Your task to perform on an android device: Open accessibility settings Image 0: 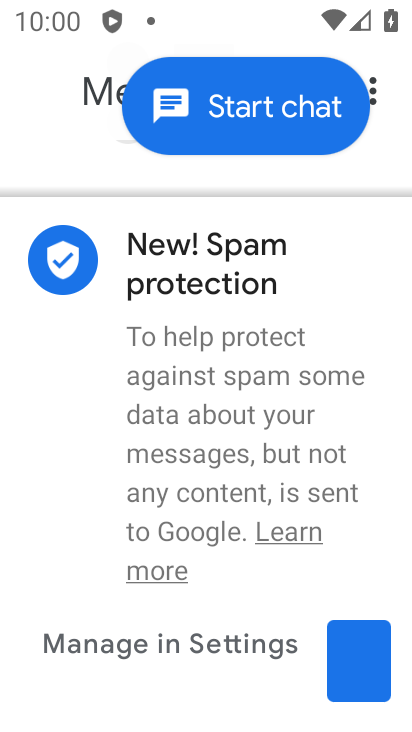
Step 0: press home button
Your task to perform on an android device: Open accessibility settings Image 1: 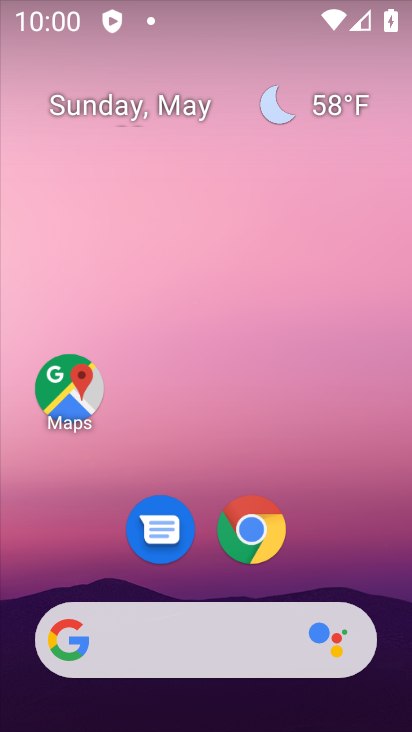
Step 1: drag from (214, 577) to (196, 267)
Your task to perform on an android device: Open accessibility settings Image 2: 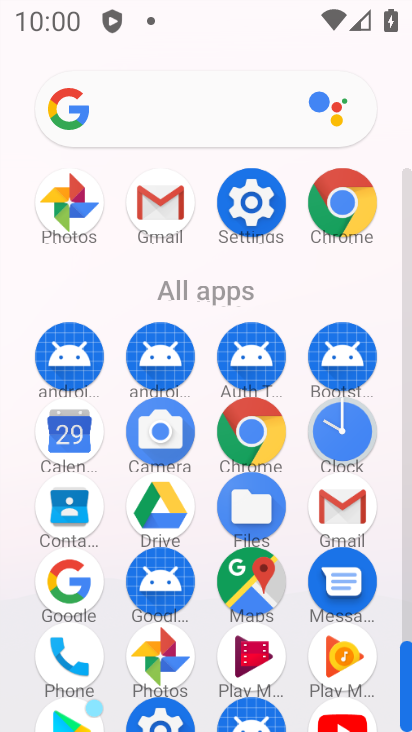
Step 2: click (264, 200)
Your task to perform on an android device: Open accessibility settings Image 3: 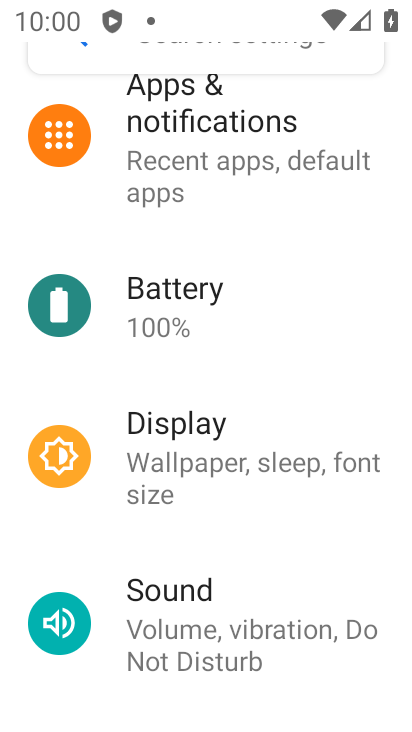
Step 3: drag from (236, 532) to (305, 193)
Your task to perform on an android device: Open accessibility settings Image 4: 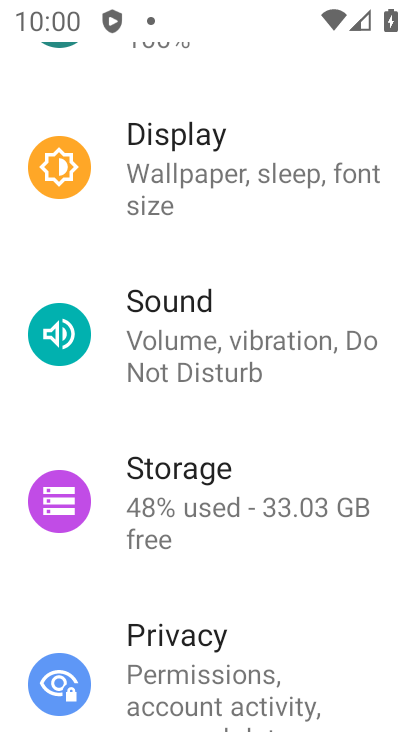
Step 4: drag from (293, 612) to (306, 227)
Your task to perform on an android device: Open accessibility settings Image 5: 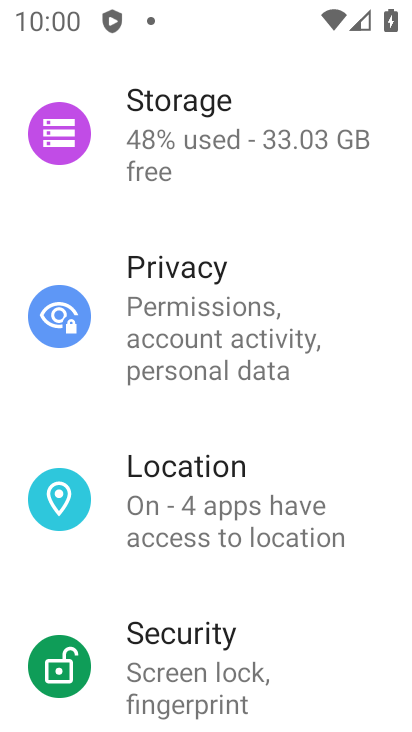
Step 5: drag from (178, 644) to (253, 264)
Your task to perform on an android device: Open accessibility settings Image 6: 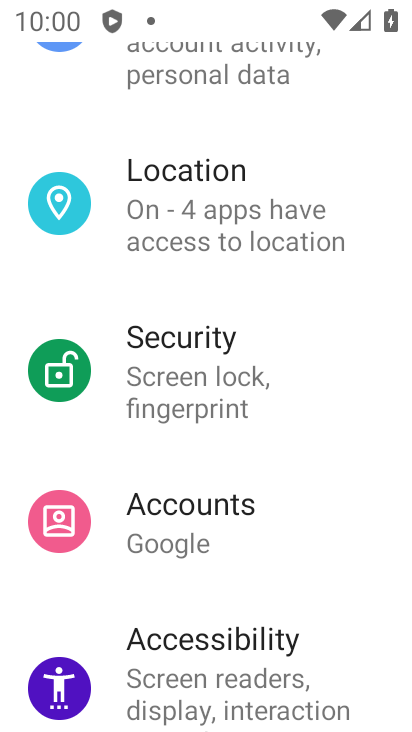
Step 6: click (229, 639)
Your task to perform on an android device: Open accessibility settings Image 7: 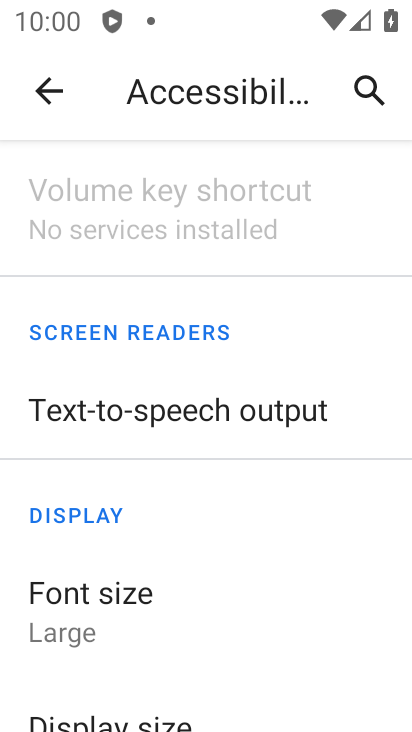
Step 7: task complete